Your task to perform on an android device: Search for Mexican restaurants on Maps Image 0: 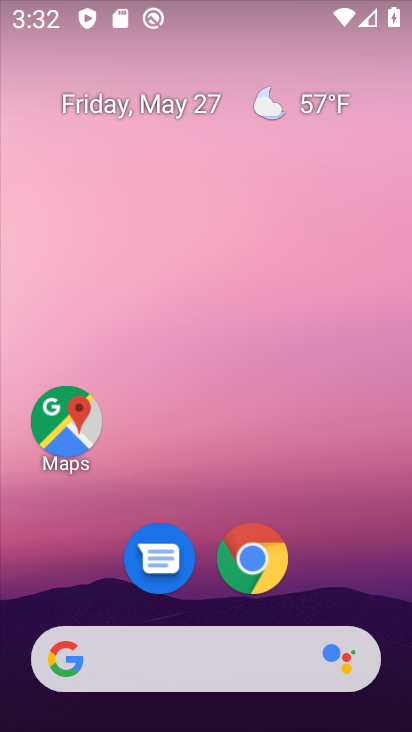
Step 0: drag from (338, 575) to (307, 56)
Your task to perform on an android device: Search for Mexican restaurants on Maps Image 1: 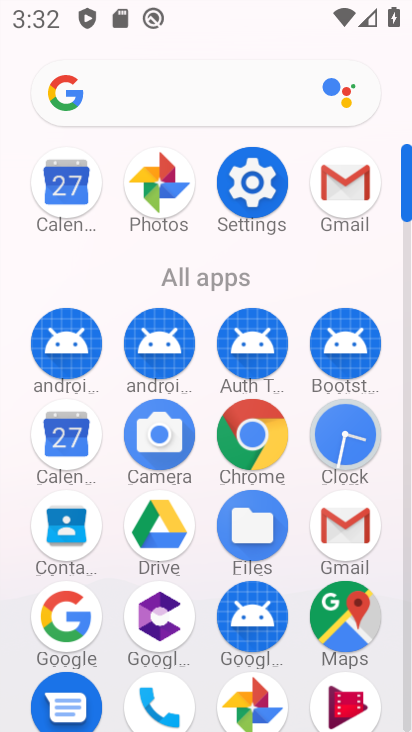
Step 1: click (329, 607)
Your task to perform on an android device: Search for Mexican restaurants on Maps Image 2: 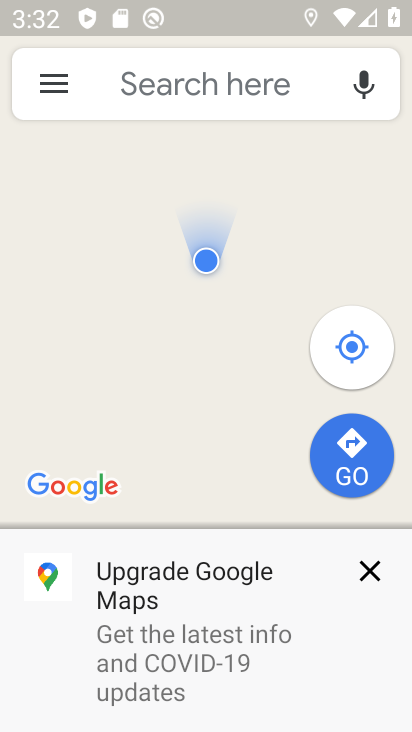
Step 2: click (217, 97)
Your task to perform on an android device: Search for Mexican restaurants on Maps Image 3: 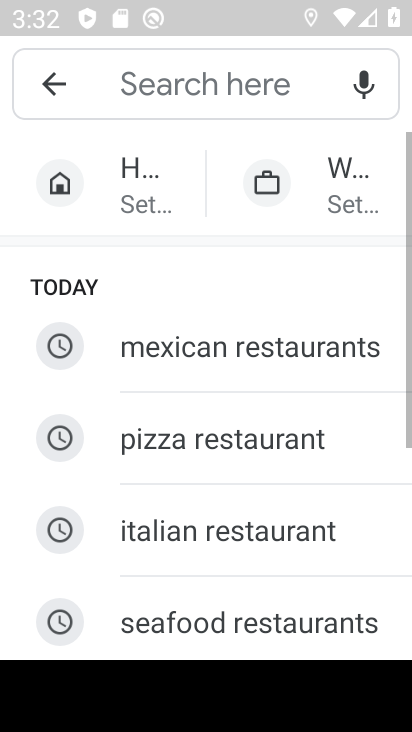
Step 3: click (242, 335)
Your task to perform on an android device: Search for Mexican restaurants on Maps Image 4: 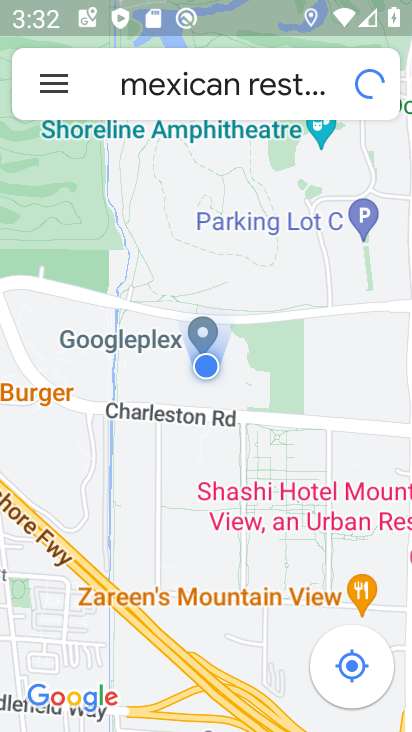
Step 4: task complete